Your task to perform on an android device: Open notification settings Image 0: 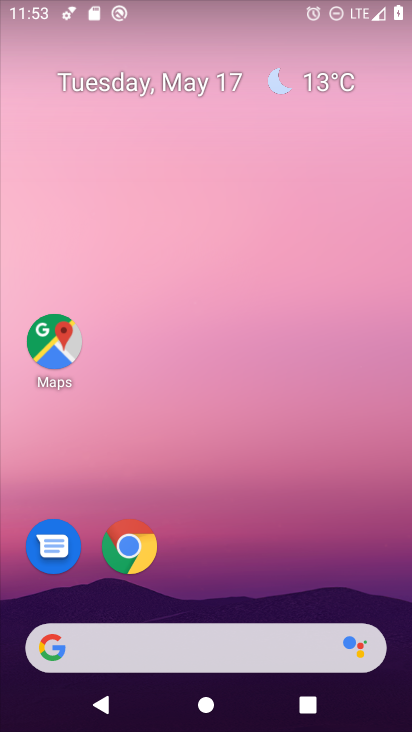
Step 0: drag from (315, 617) to (337, 87)
Your task to perform on an android device: Open notification settings Image 1: 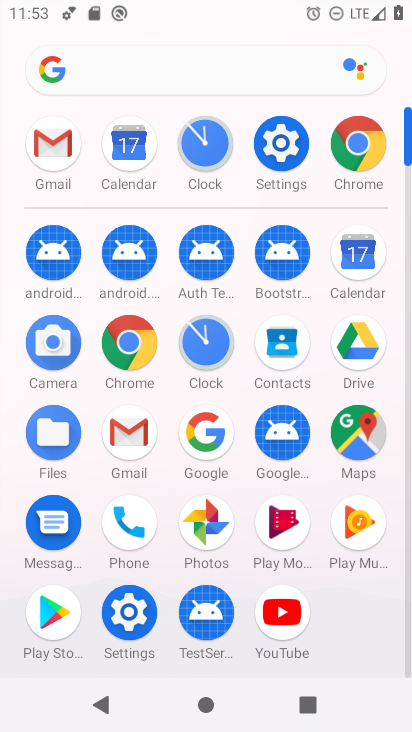
Step 1: click (285, 146)
Your task to perform on an android device: Open notification settings Image 2: 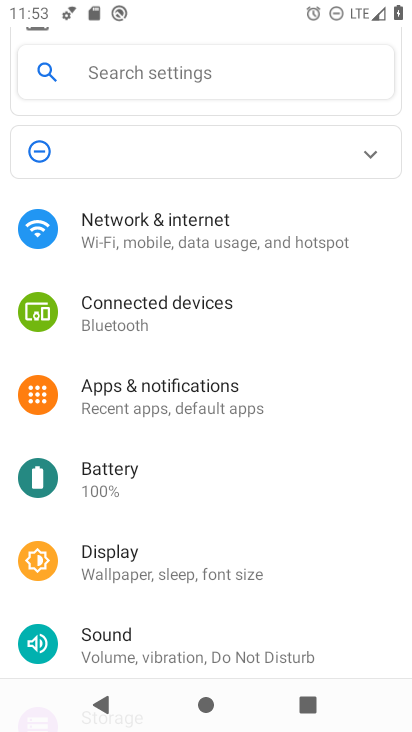
Step 2: click (177, 402)
Your task to perform on an android device: Open notification settings Image 3: 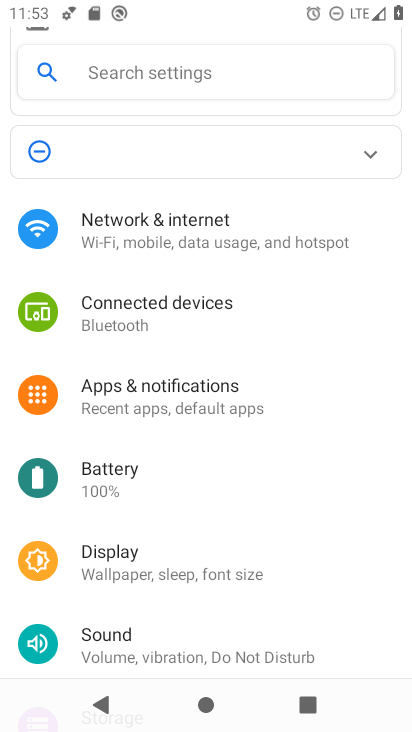
Step 3: click (109, 398)
Your task to perform on an android device: Open notification settings Image 4: 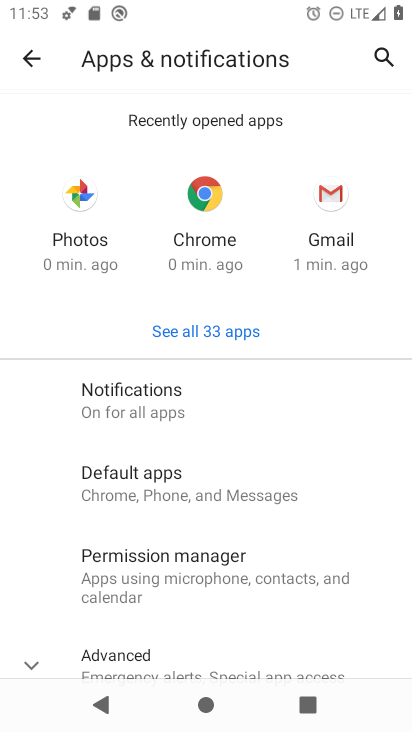
Step 4: task complete